Your task to perform on an android device: open app "Walmart Shopping & Grocery" (install if not already installed) and go to login screen Image 0: 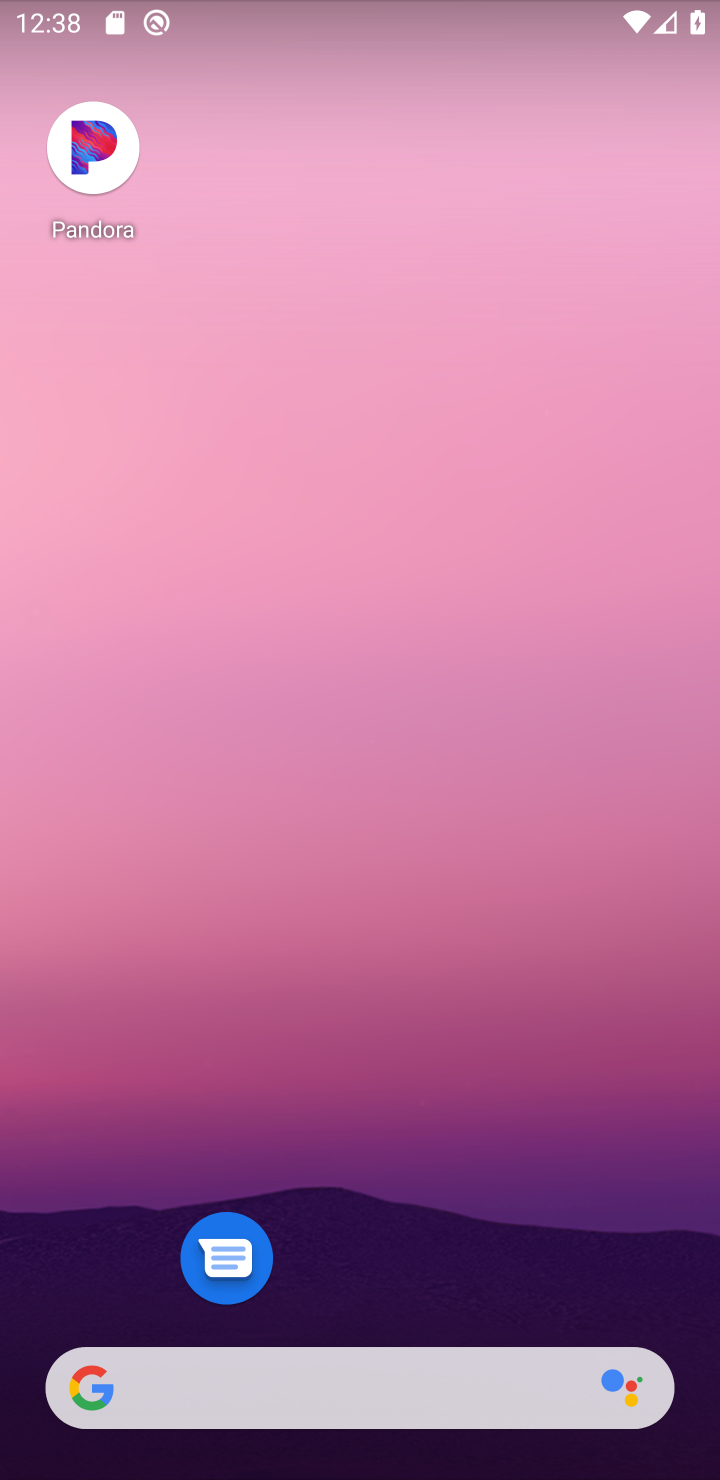
Step 0: drag from (415, 631) to (441, 470)
Your task to perform on an android device: open app "Walmart Shopping & Grocery" (install if not already installed) and go to login screen Image 1: 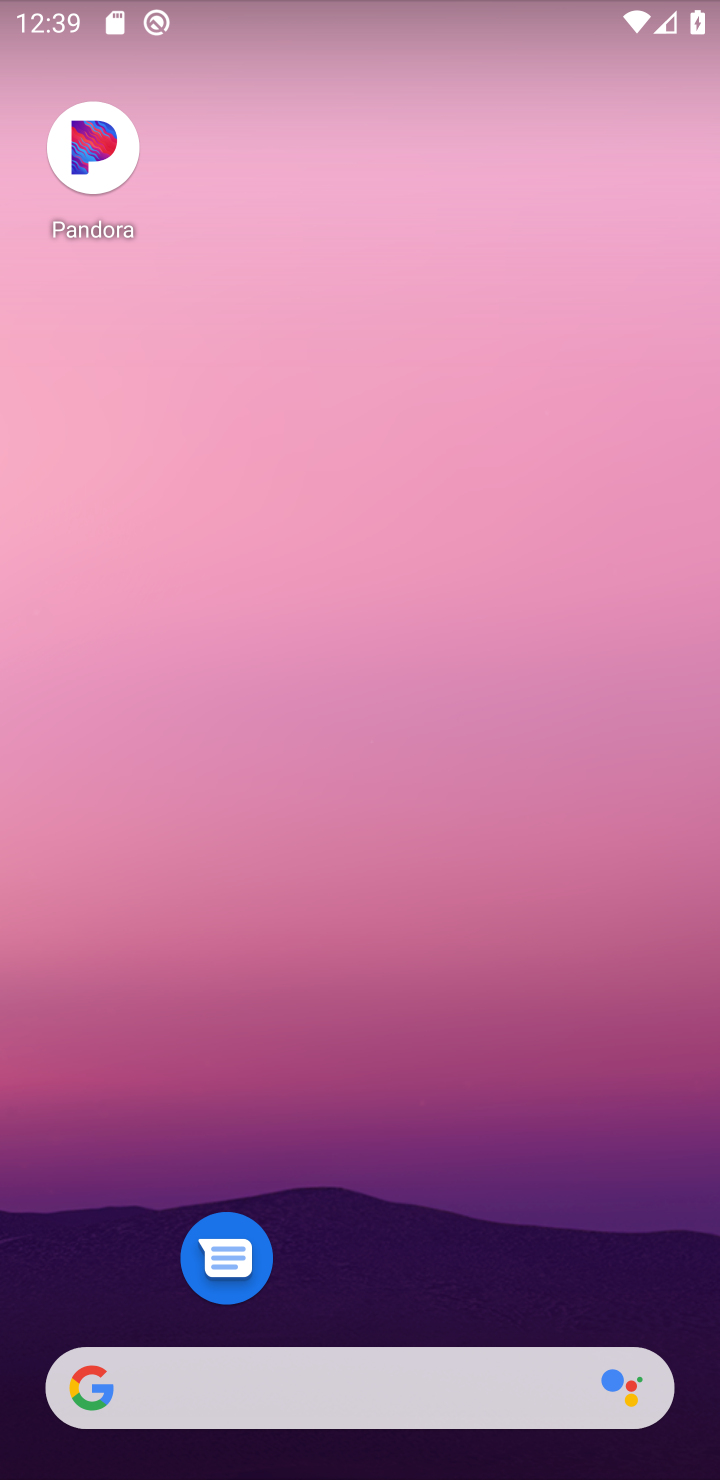
Step 1: drag from (479, 1319) to (475, 646)
Your task to perform on an android device: open app "Walmart Shopping & Grocery" (install if not already installed) and go to login screen Image 2: 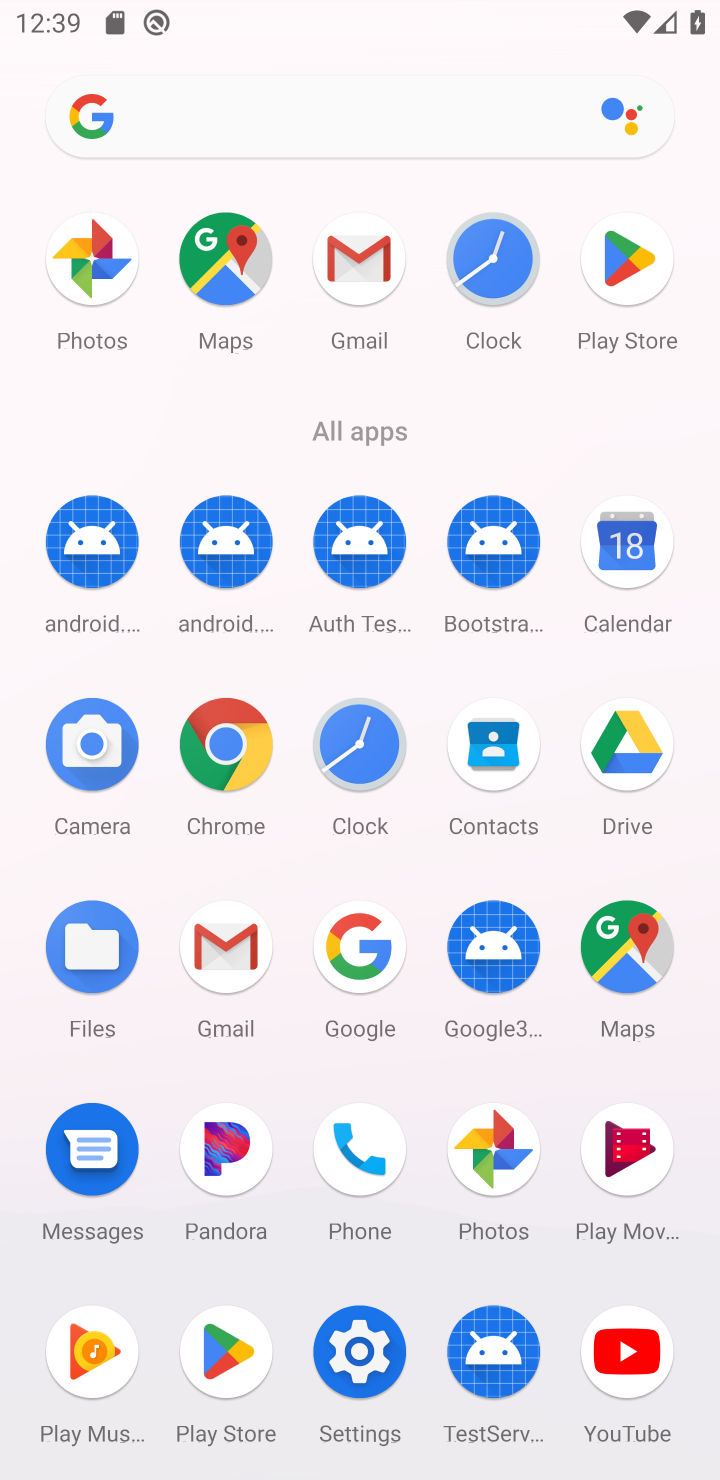
Step 2: click (647, 275)
Your task to perform on an android device: open app "Walmart Shopping & Grocery" (install if not already installed) and go to login screen Image 3: 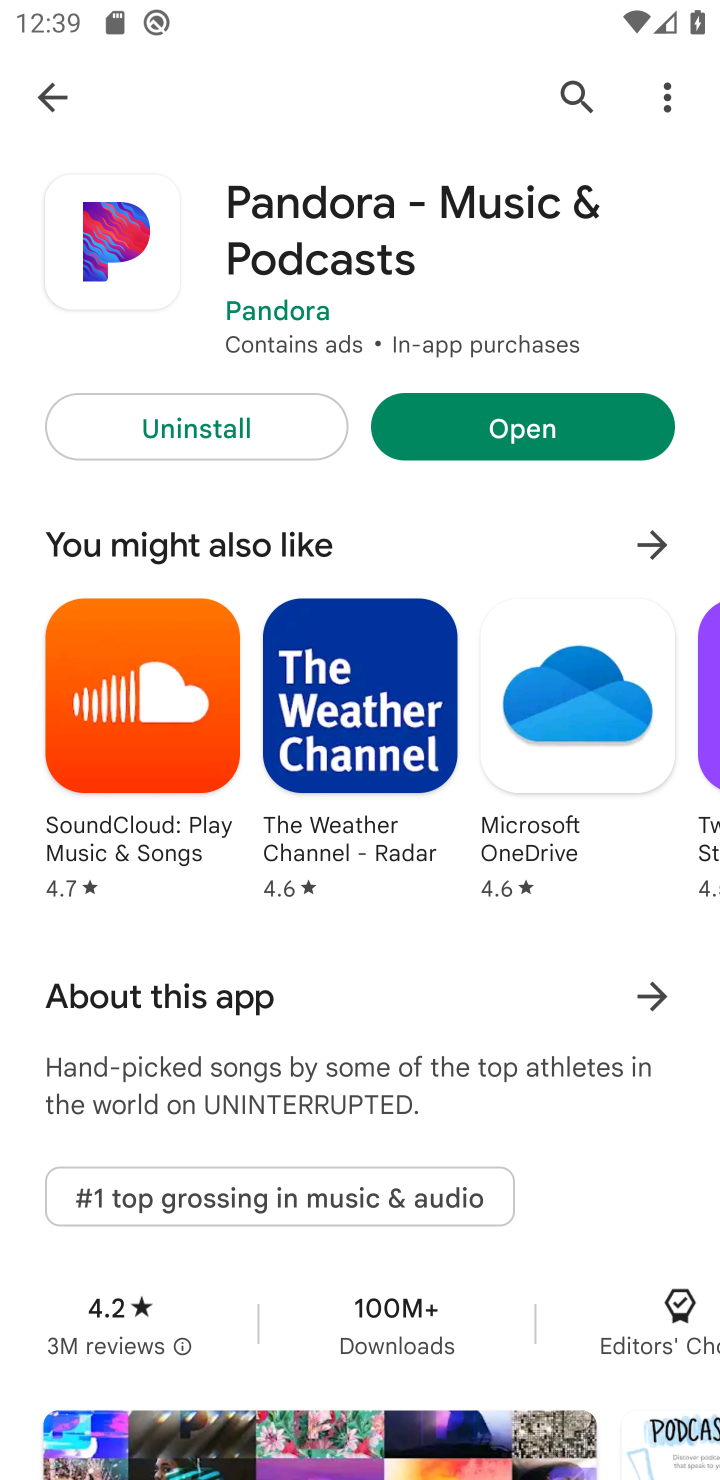
Step 3: click (60, 79)
Your task to perform on an android device: open app "Walmart Shopping & Grocery" (install if not already installed) and go to login screen Image 4: 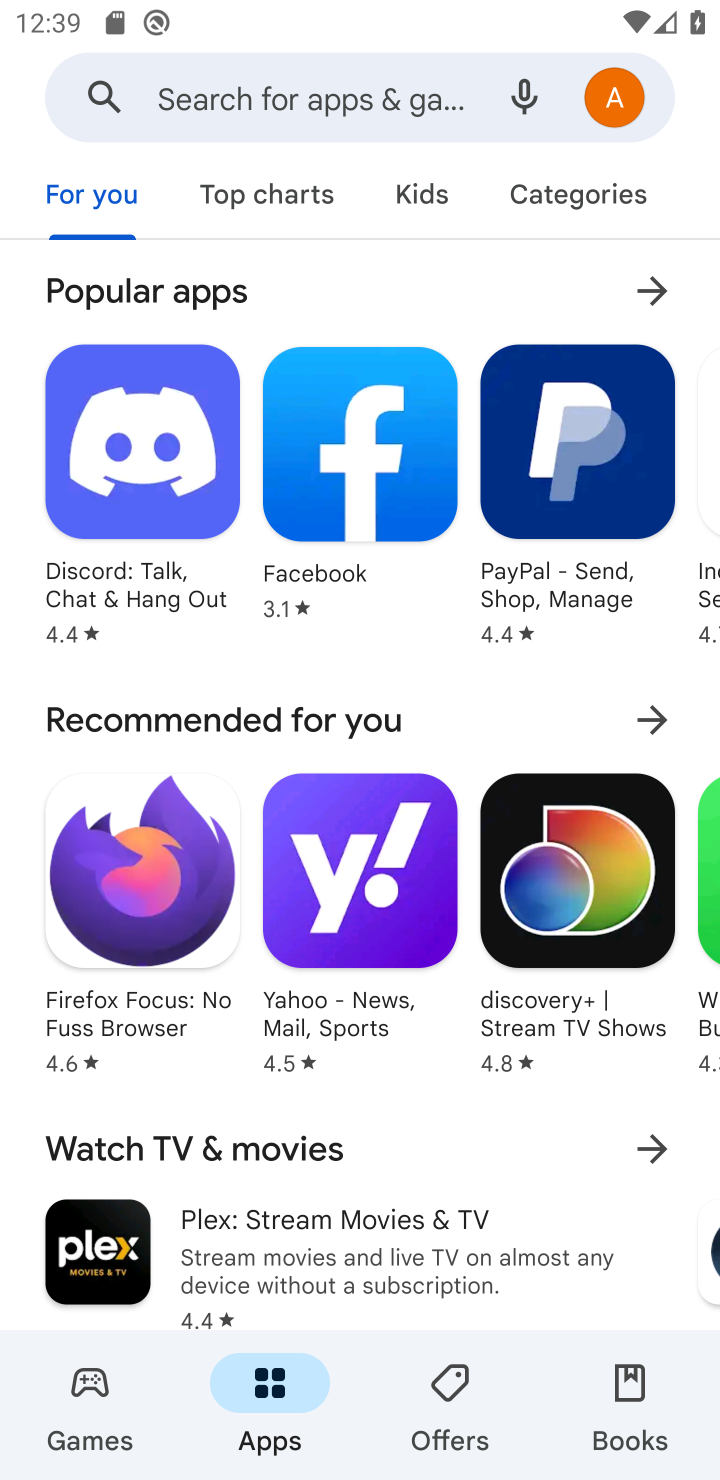
Step 4: click (273, 91)
Your task to perform on an android device: open app "Walmart Shopping & Grocery" (install if not already installed) and go to login screen Image 5: 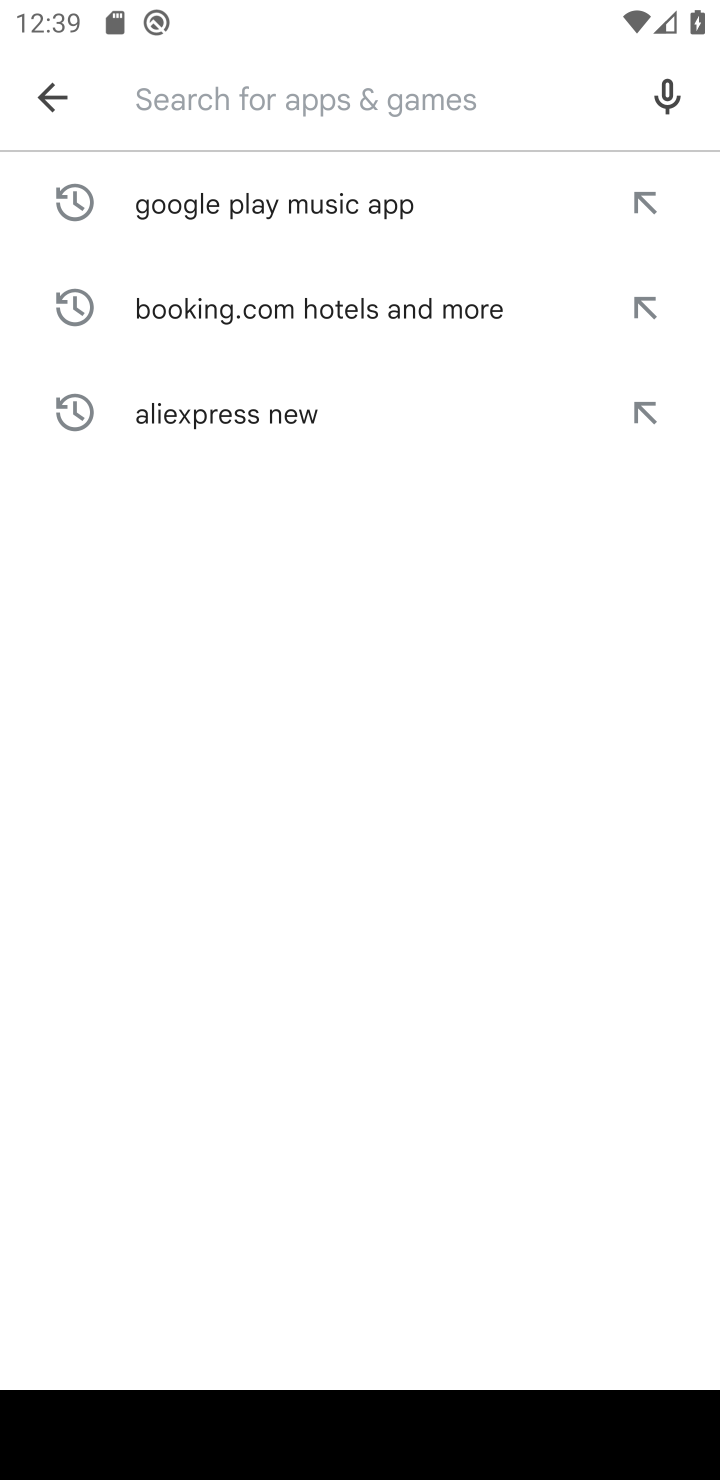
Step 5: type "Walmart Shopping & Grocery "
Your task to perform on an android device: open app "Walmart Shopping & Grocery" (install if not already installed) and go to login screen Image 6: 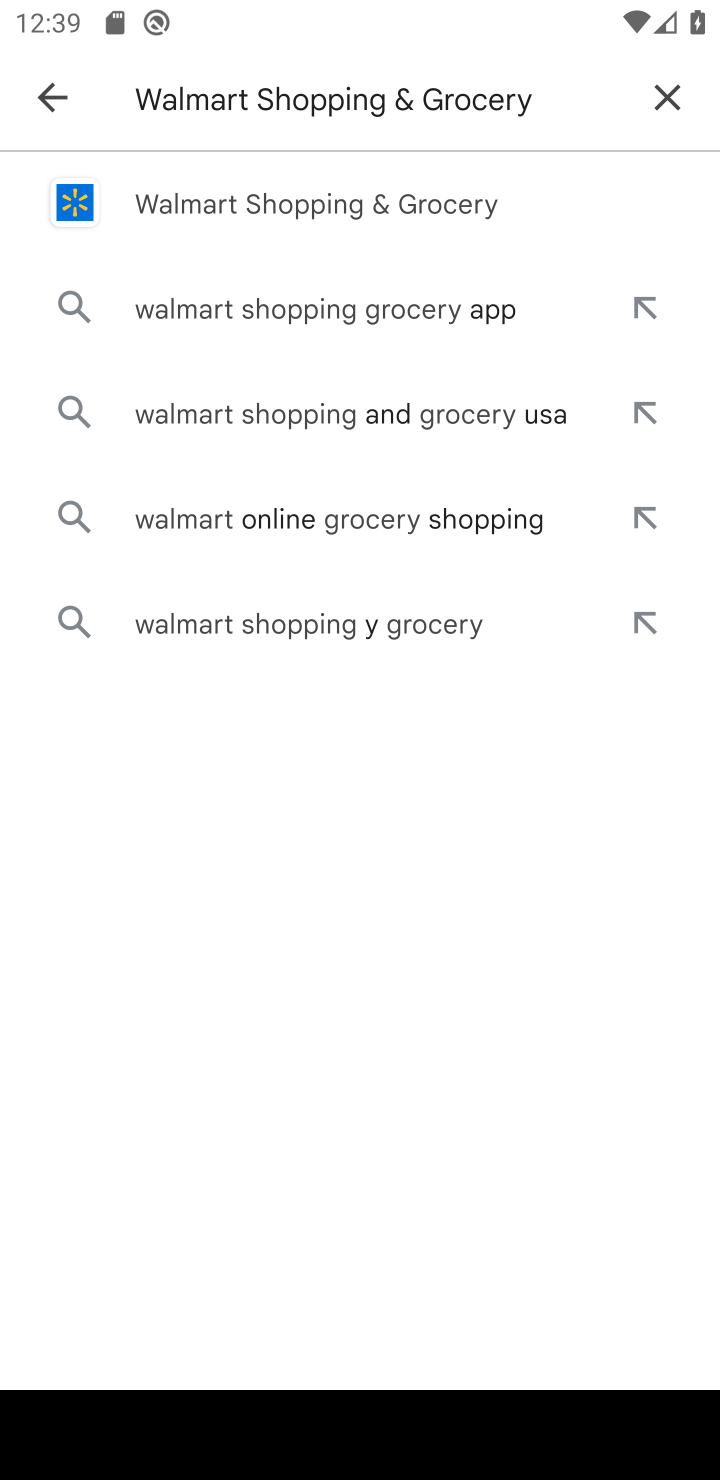
Step 6: click (294, 201)
Your task to perform on an android device: open app "Walmart Shopping & Grocery" (install if not already installed) and go to login screen Image 7: 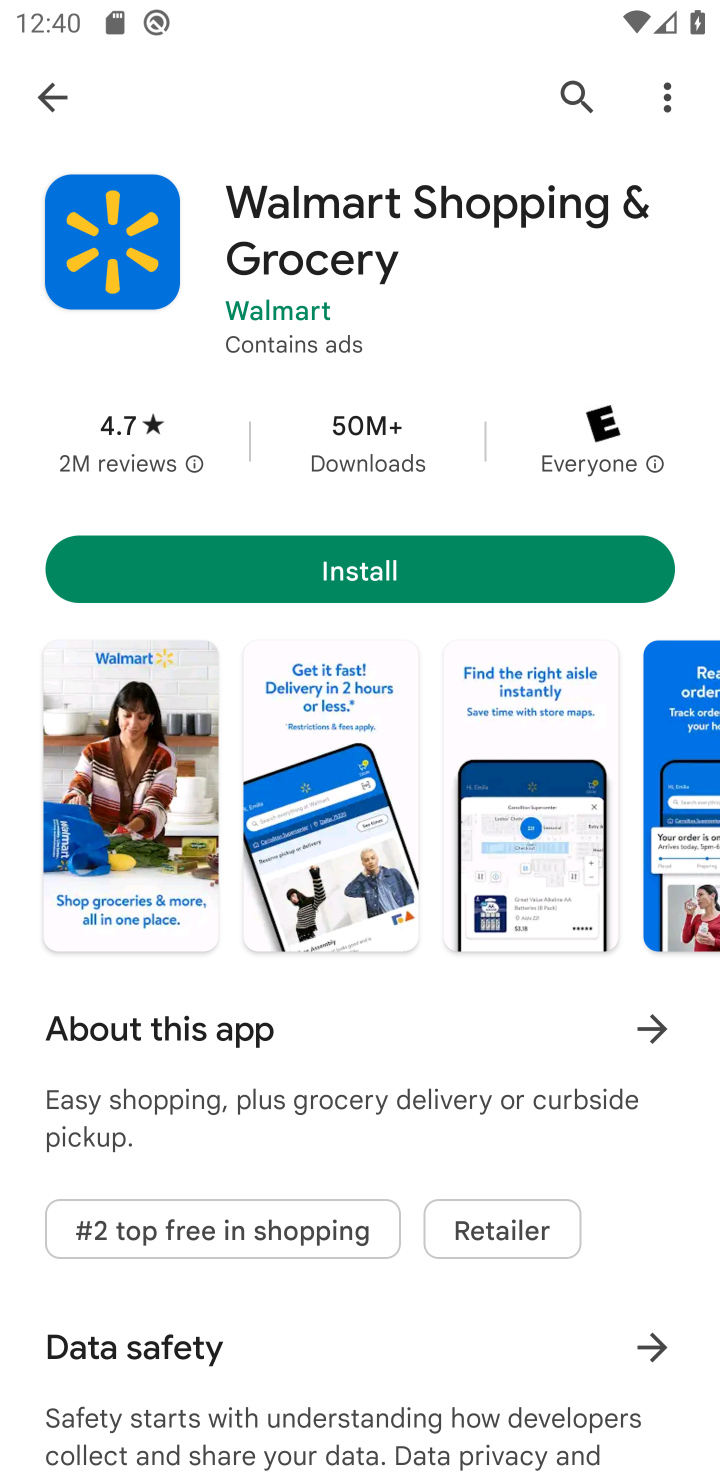
Step 7: click (350, 560)
Your task to perform on an android device: open app "Walmart Shopping & Grocery" (install if not already installed) and go to login screen Image 8: 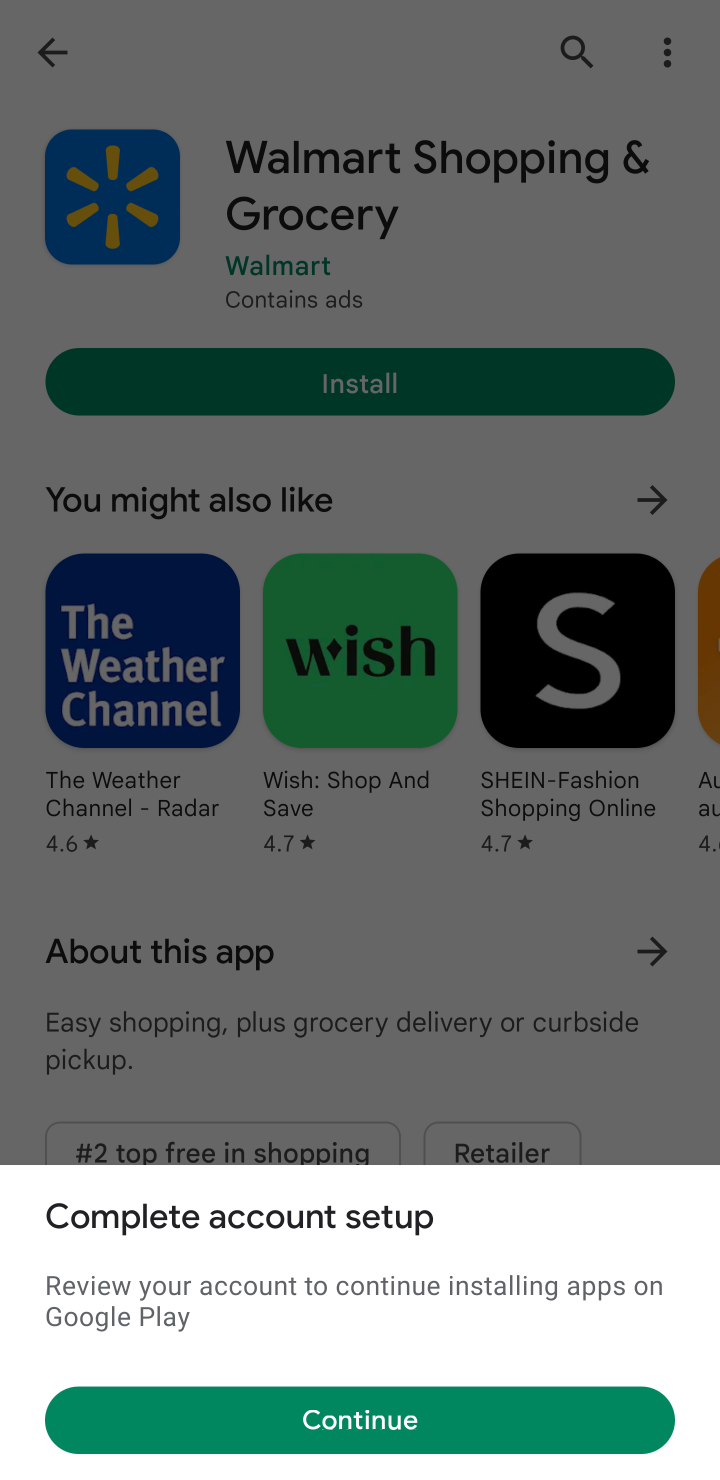
Step 8: task complete